Your task to perform on an android device: Search for "asus zenbook" on target.com, select the first entry, add it to the cart, then select checkout. Image 0: 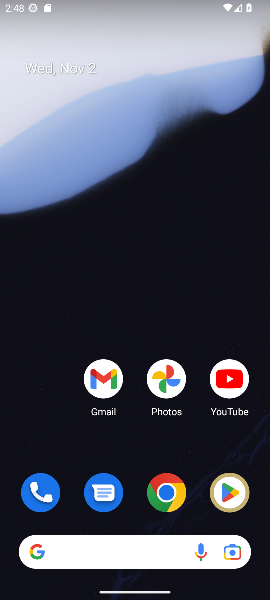
Step 0: click (166, 493)
Your task to perform on an android device: Search for "asus zenbook" on target.com, select the first entry, add it to the cart, then select checkout. Image 1: 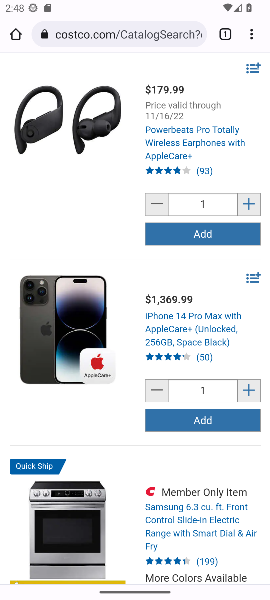
Step 1: click (138, 22)
Your task to perform on an android device: Search for "asus zenbook" on target.com, select the first entry, add it to the cart, then select checkout. Image 2: 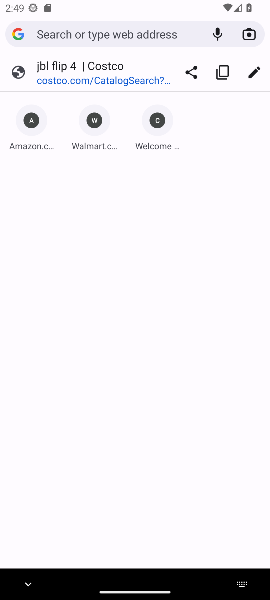
Step 2: type "target.com"
Your task to perform on an android device: Search for "asus zenbook" on target.com, select the first entry, add it to the cart, then select checkout. Image 3: 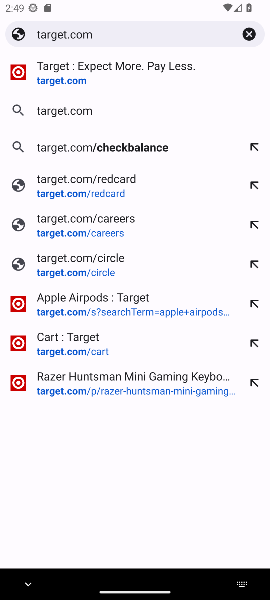
Step 3: click (73, 66)
Your task to perform on an android device: Search for "asus zenbook" on target.com, select the first entry, add it to the cart, then select checkout. Image 4: 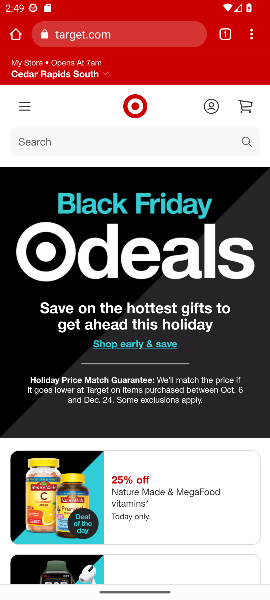
Step 4: click (85, 131)
Your task to perform on an android device: Search for "asus zenbook" on target.com, select the first entry, add it to the cart, then select checkout. Image 5: 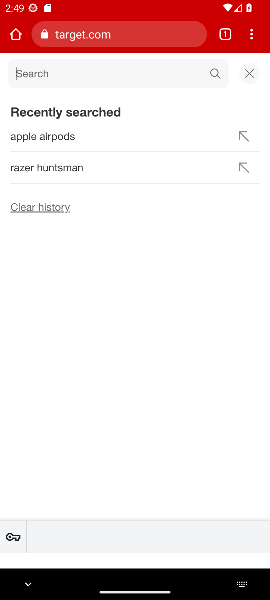
Step 5: type "asus zenbook"
Your task to perform on an android device: Search for "asus zenbook" on target.com, select the first entry, add it to the cart, then select checkout. Image 6: 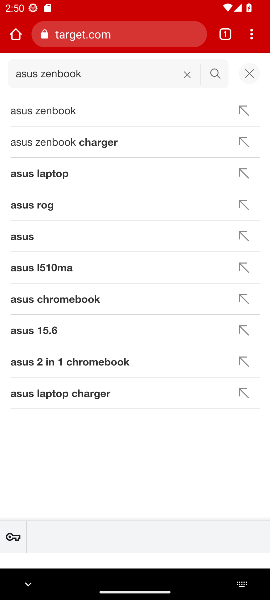
Step 6: click (55, 113)
Your task to perform on an android device: Search for "asus zenbook" on target.com, select the first entry, add it to the cart, then select checkout. Image 7: 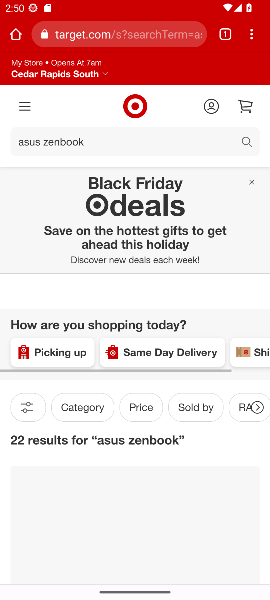
Step 7: drag from (176, 439) to (182, 141)
Your task to perform on an android device: Search for "asus zenbook" on target.com, select the first entry, add it to the cart, then select checkout. Image 8: 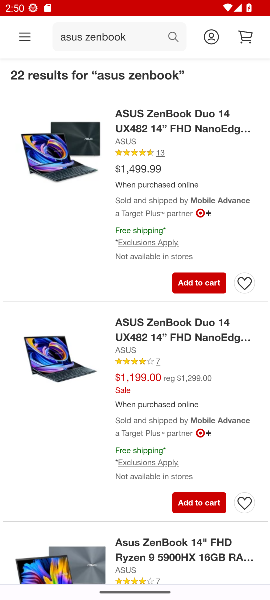
Step 8: click (190, 285)
Your task to perform on an android device: Search for "asus zenbook" on target.com, select the first entry, add it to the cart, then select checkout. Image 9: 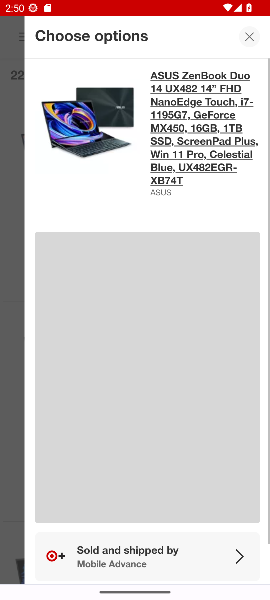
Step 9: drag from (157, 501) to (154, 274)
Your task to perform on an android device: Search for "asus zenbook" on target.com, select the first entry, add it to the cart, then select checkout. Image 10: 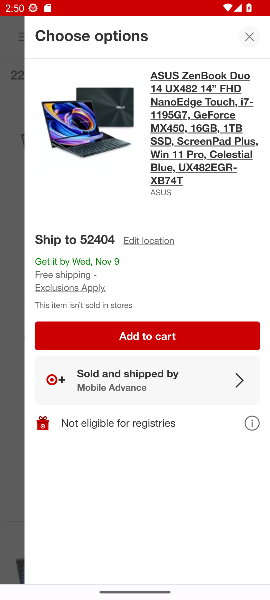
Step 10: click (139, 336)
Your task to perform on an android device: Search for "asus zenbook" on target.com, select the first entry, add it to the cart, then select checkout. Image 11: 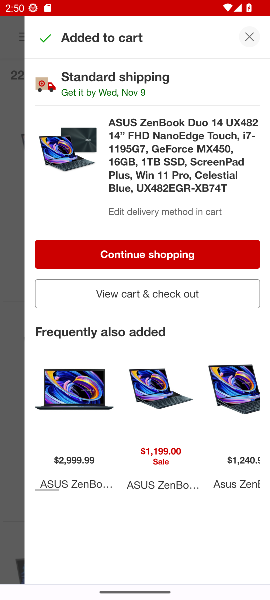
Step 11: click (136, 289)
Your task to perform on an android device: Search for "asus zenbook" on target.com, select the first entry, add it to the cart, then select checkout. Image 12: 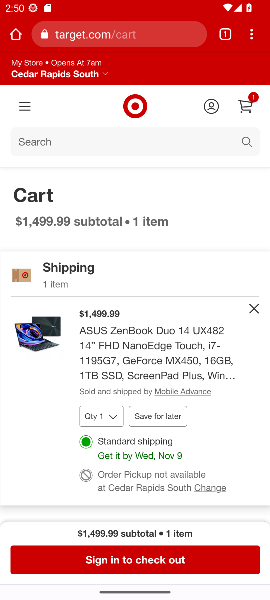
Step 12: click (142, 565)
Your task to perform on an android device: Search for "asus zenbook" on target.com, select the first entry, add it to the cart, then select checkout. Image 13: 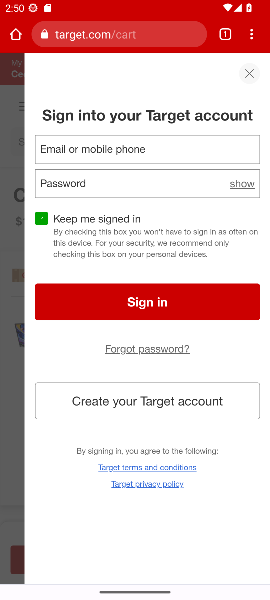
Step 13: task complete